Your task to perform on an android device: Is it going to rain this weekend? Image 0: 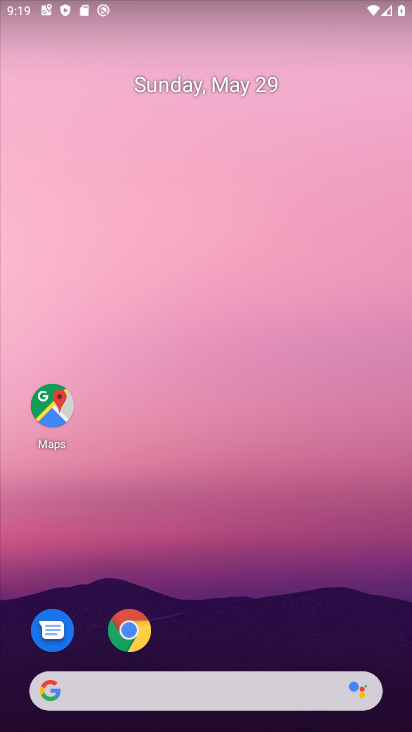
Step 0: drag from (12, 268) to (354, 326)
Your task to perform on an android device: Is it going to rain this weekend? Image 1: 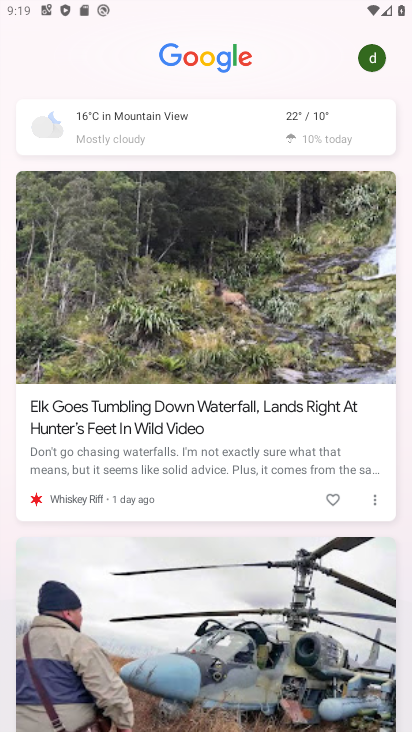
Step 1: click (317, 108)
Your task to perform on an android device: Is it going to rain this weekend? Image 2: 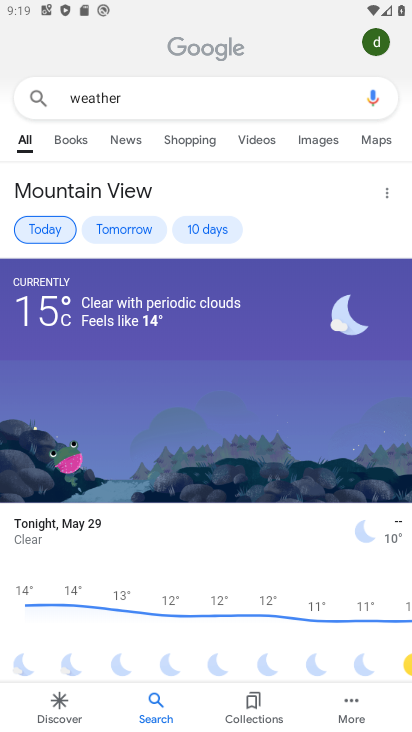
Step 2: click (198, 237)
Your task to perform on an android device: Is it going to rain this weekend? Image 3: 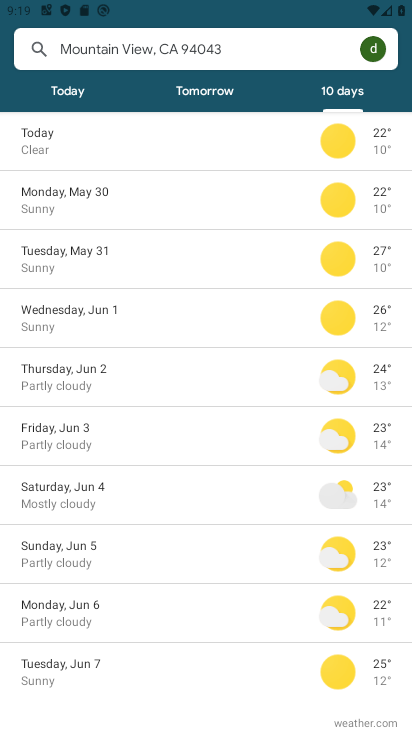
Step 3: task complete